Your task to perform on an android device: turn off location history Image 0: 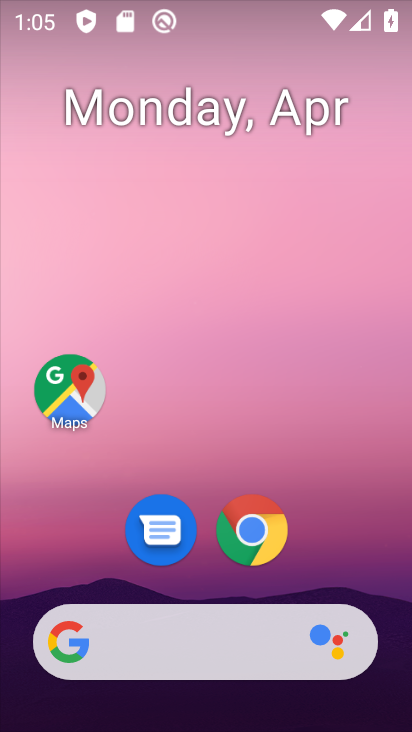
Step 0: click (68, 398)
Your task to perform on an android device: turn off location history Image 1: 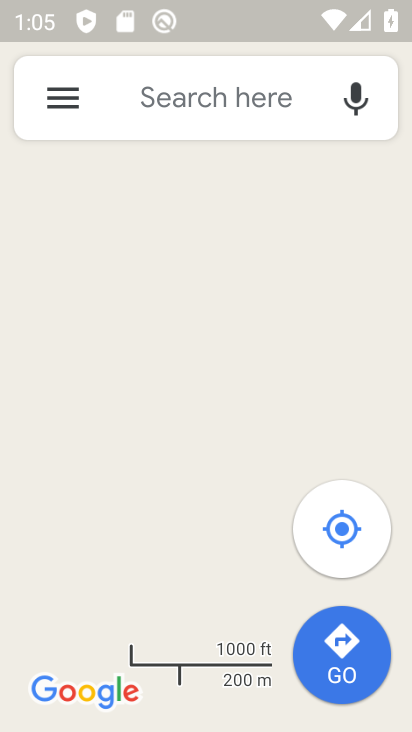
Step 1: click (56, 93)
Your task to perform on an android device: turn off location history Image 2: 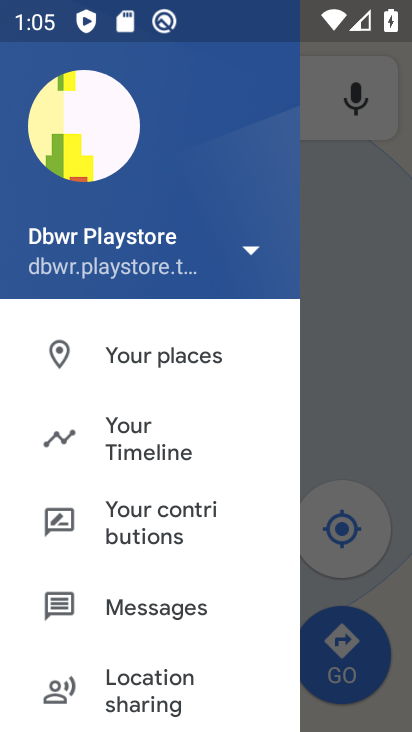
Step 2: click (138, 432)
Your task to perform on an android device: turn off location history Image 3: 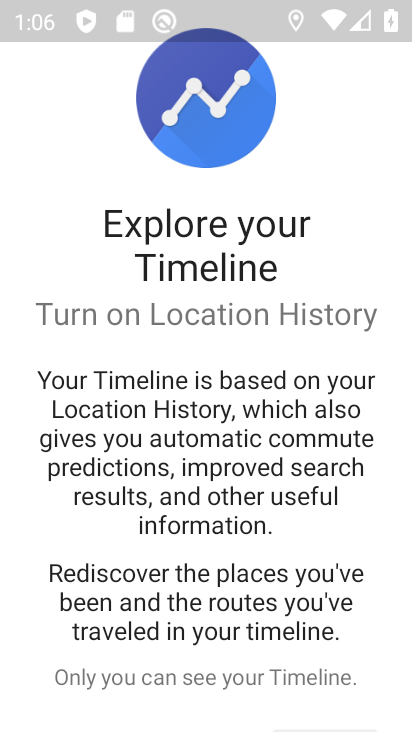
Step 3: drag from (277, 569) to (287, 110)
Your task to perform on an android device: turn off location history Image 4: 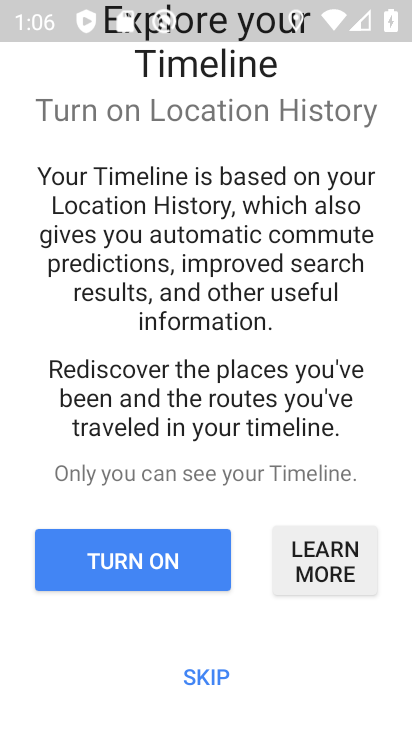
Step 4: click (167, 570)
Your task to perform on an android device: turn off location history Image 5: 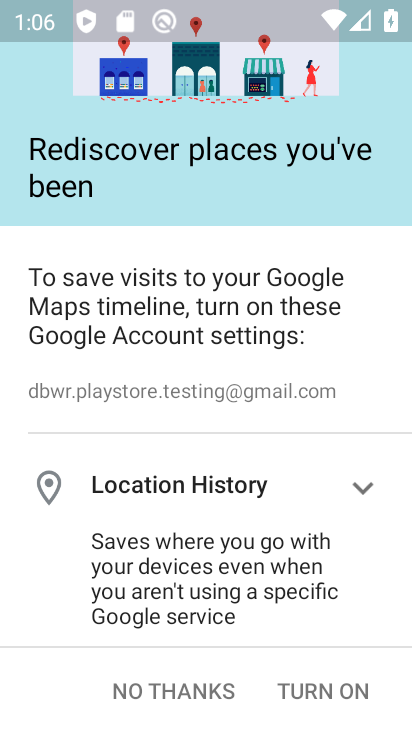
Step 5: drag from (231, 603) to (218, 353)
Your task to perform on an android device: turn off location history Image 6: 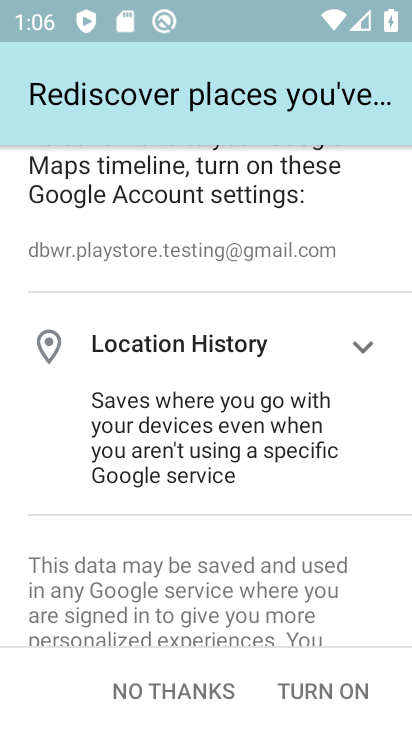
Step 6: drag from (263, 525) to (252, 220)
Your task to perform on an android device: turn off location history Image 7: 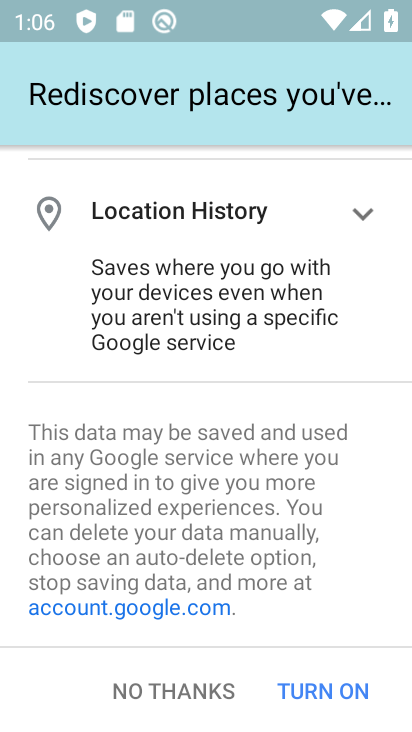
Step 7: click (191, 689)
Your task to perform on an android device: turn off location history Image 8: 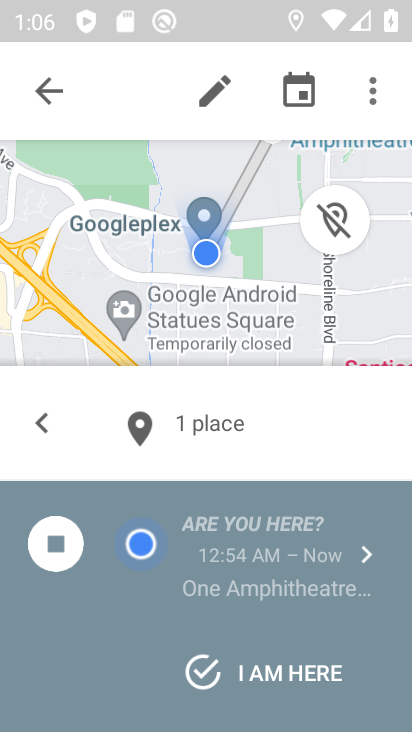
Step 8: click (371, 88)
Your task to perform on an android device: turn off location history Image 9: 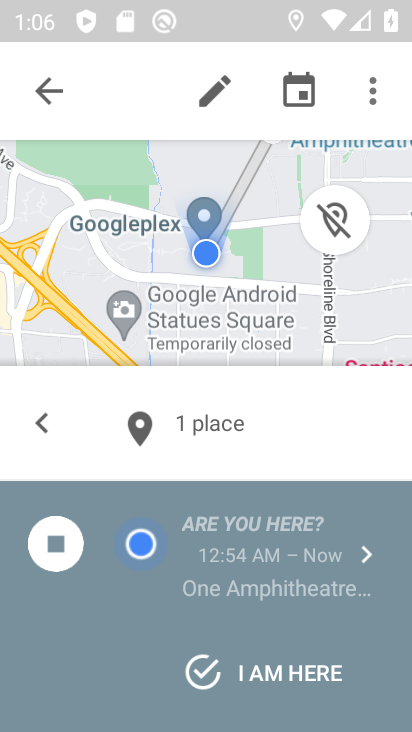
Step 9: click (371, 90)
Your task to perform on an android device: turn off location history Image 10: 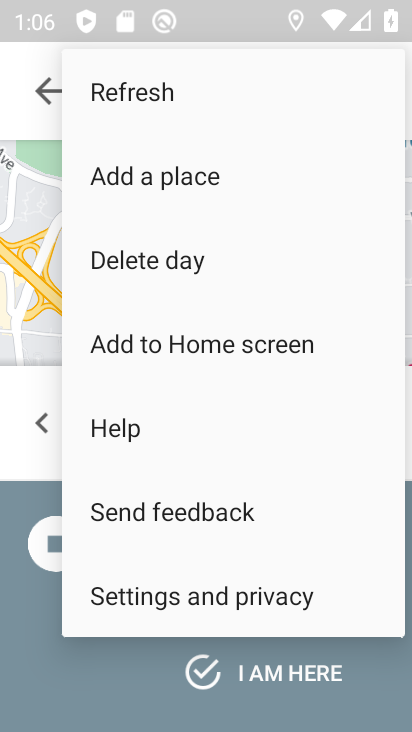
Step 10: click (181, 595)
Your task to perform on an android device: turn off location history Image 11: 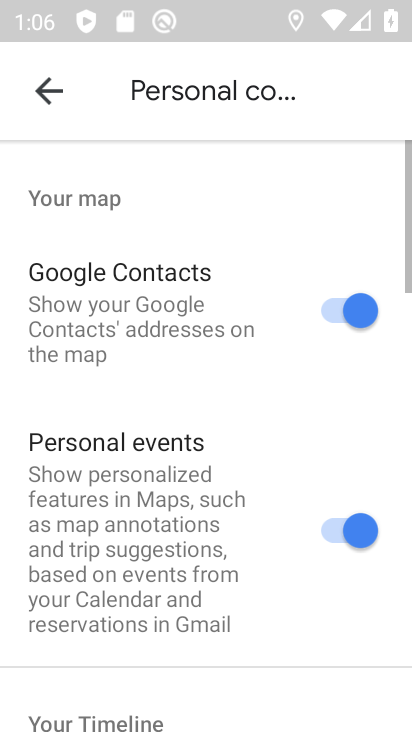
Step 11: drag from (201, 578) to (180, 163)
Your task to perform on an android device: turn off location history Image 12: 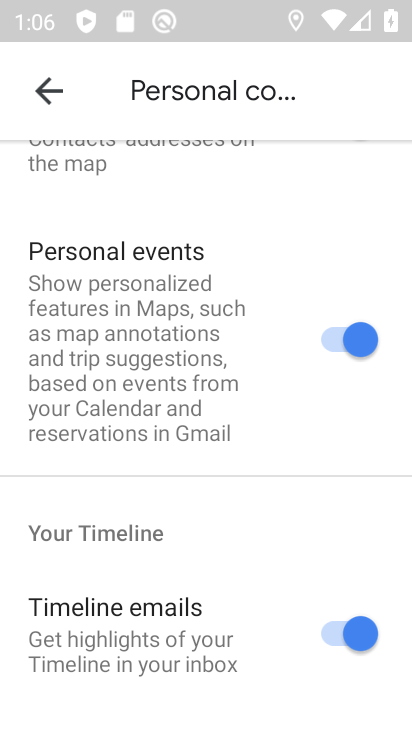
Step 12: drag from (171, 559) to (151, 80)
Your task to perform on an android device: turn off location history Image 13: 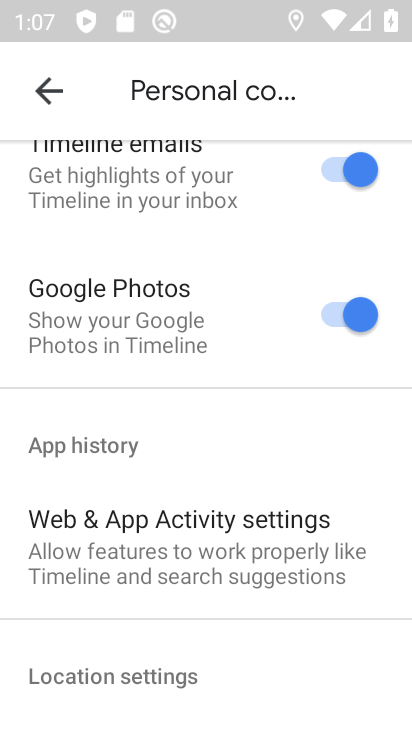
Step 13: drag from (172, 446) to (152, 136)
Your task to perform on an android device: turn off location history Image 14: 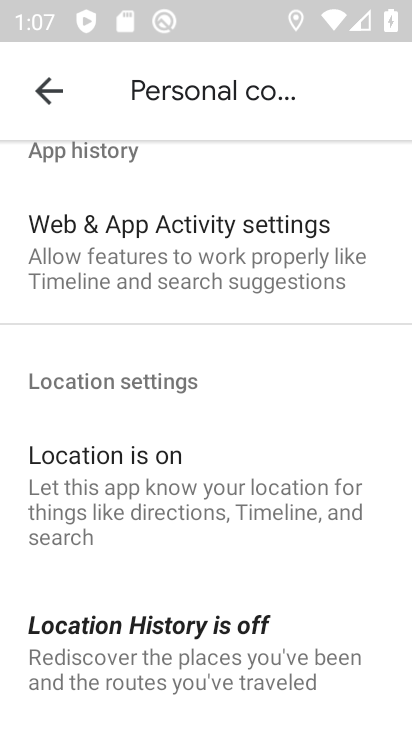
Step 14: click (188, 630)
Your task to perform on an android device: turn off location history Image 15: 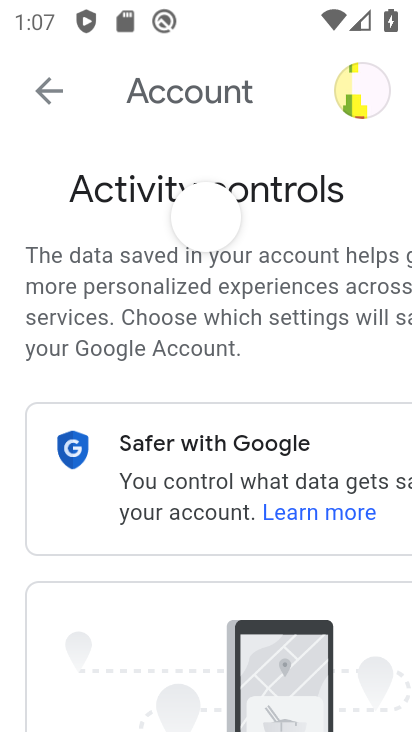
Step 15: task complete